Your task to perform on an android device: What's the weather going to be tomorrow? Image 0: 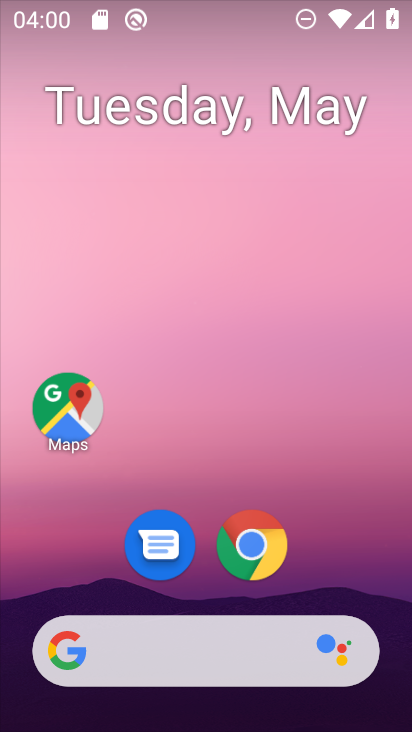
Step 0: click (162, 661)
Your task to perform on an android device: What's the weather going to be tomorrow? Image 1: 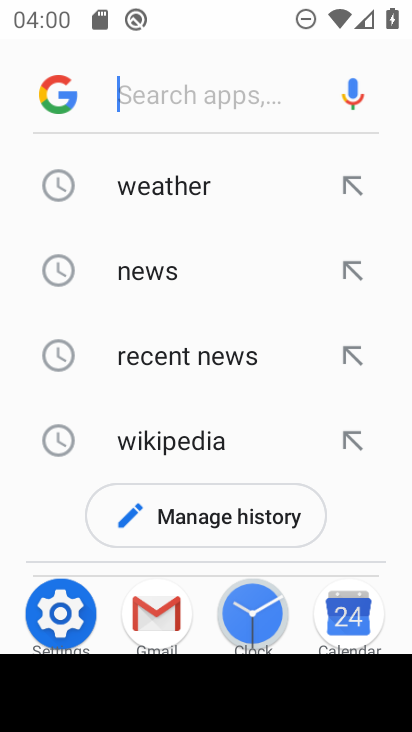
Step 1: click (152, 184)
Your task to perform on an android device: What's the weather going to be tomorrow? Image 2: 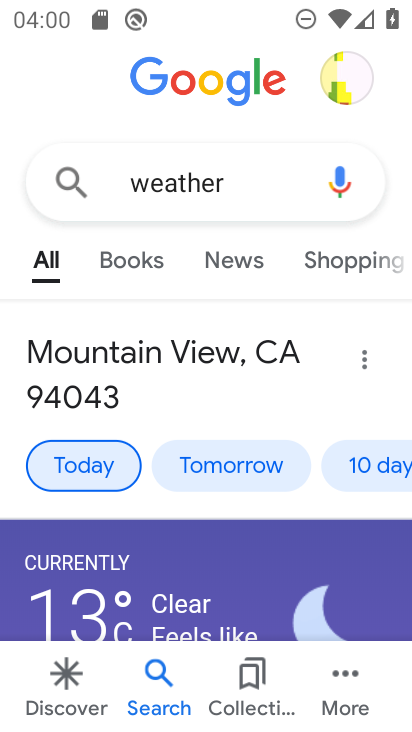
Step 2: click (233, 448)
Your task to perform on an android device: What's the weather going to be tomorrow? Image 3: 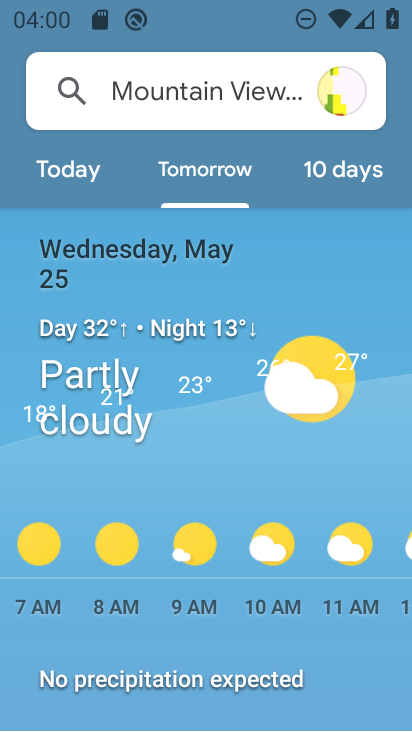
Step 3: task complete